Your task to perform on an android device: Open accessibility settings Image 0: 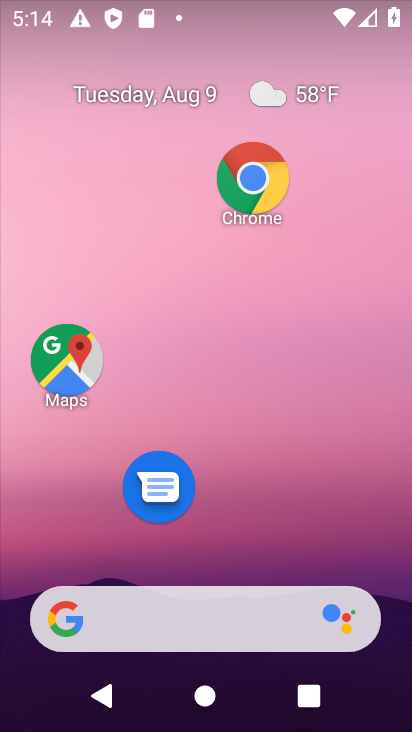
Step 0: drag from (251, 550) to (213, 154)
Your task to perform on an android device: Open accessibility settings Image 1: 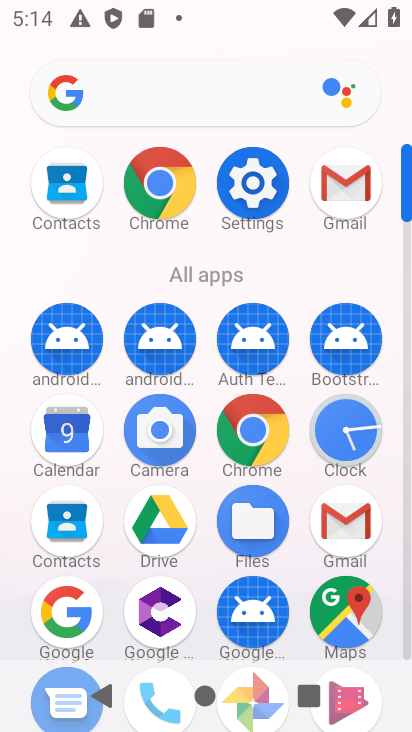
Step 1: click (233, 179)
Your task to perform on an android device: Open accessibility settings Image 2: 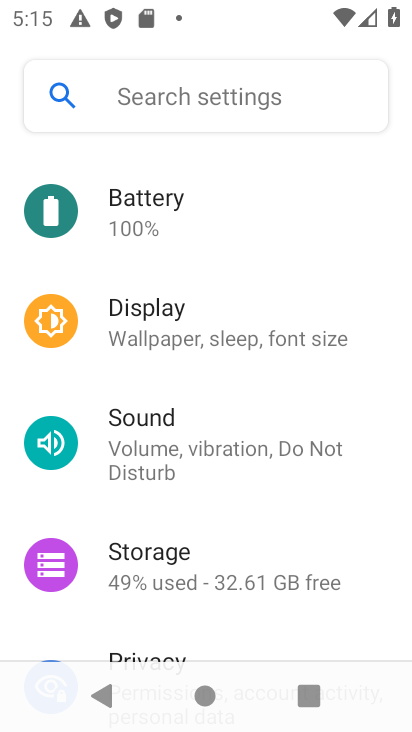
Step 2: drag from (277, 511) to (241, 213)
Your task to perform on an android device: Open accessibility settings Image 3: 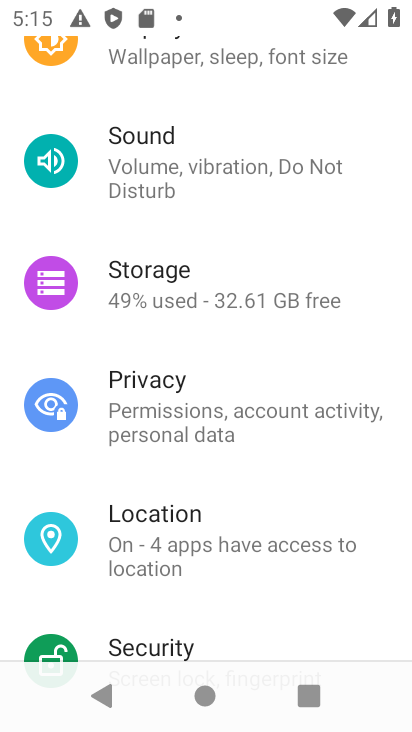
Step 3: drag from (239, 609) to (225, 157)
Your task to perform on an android device: Open accessibility settings Image 4: 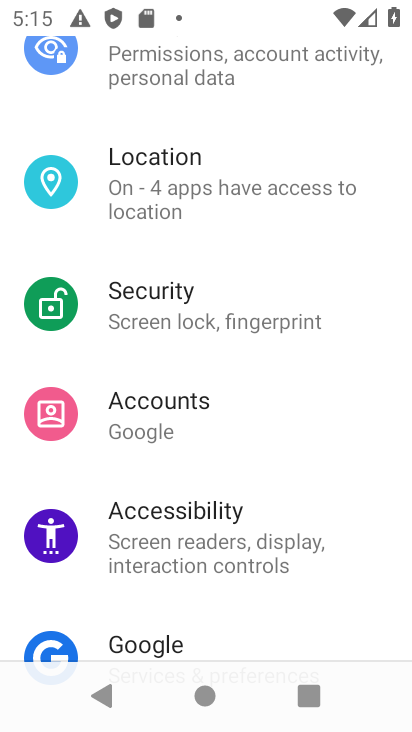
Step 4: click (197, 504)
Your task to perform on an android device: Open accessibility settings Image 5: 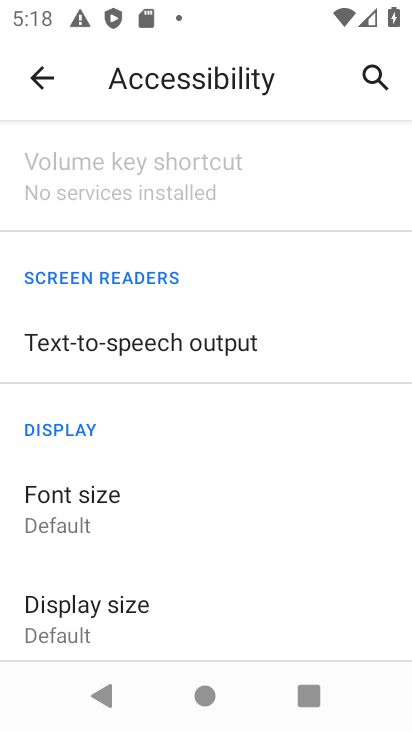
Step 5: task complete